Your task to perform on an android device: Open CNN.com Image 0: 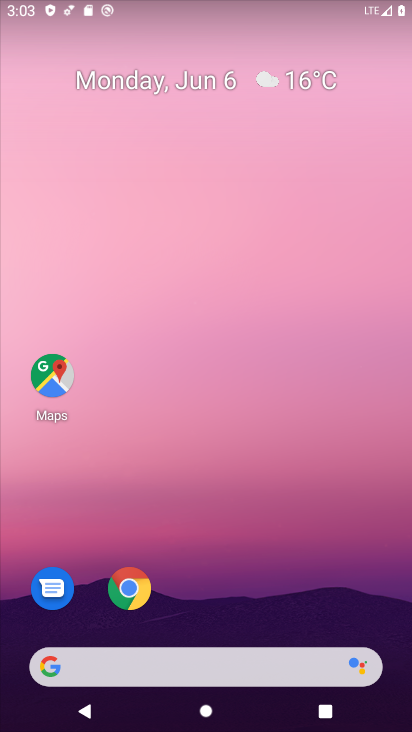
Step 0: click (139, 594)
Your task to perform on an android device: Open CNN.com Image 1: 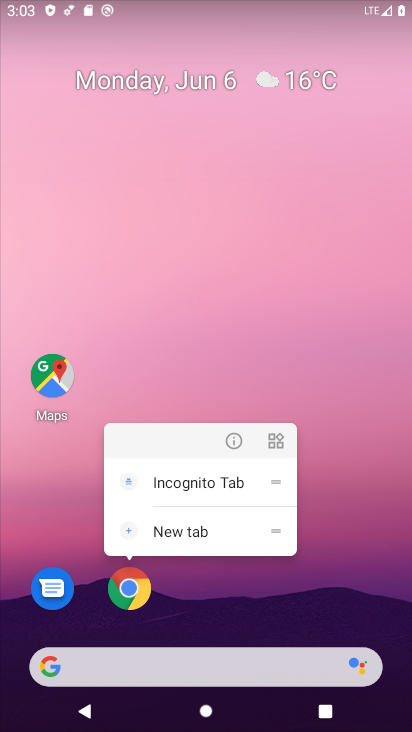
Step 1: click (139, 594)
Your task to perform on an android device: Open CNN.com Image 2: 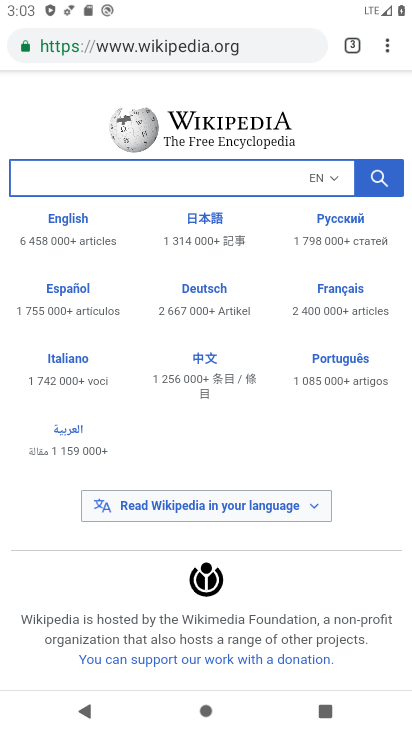
Step 2: click (187, 48)
Your task to perform on an android device: Open CNN.com Image 3: 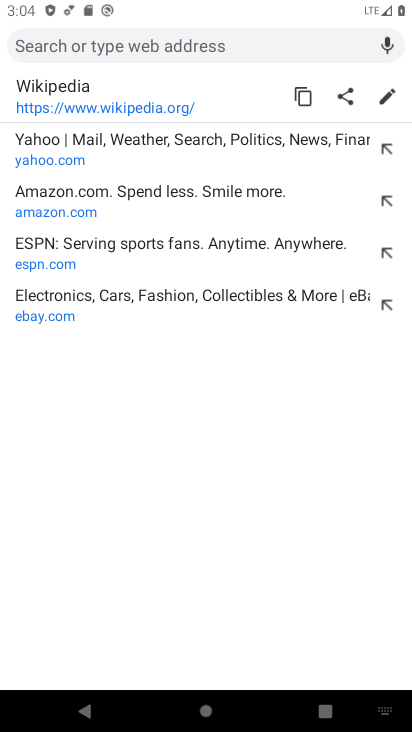
Step 3: type "cnn.com"
Your task to perform on an android device: Open CNN.com Image 4: 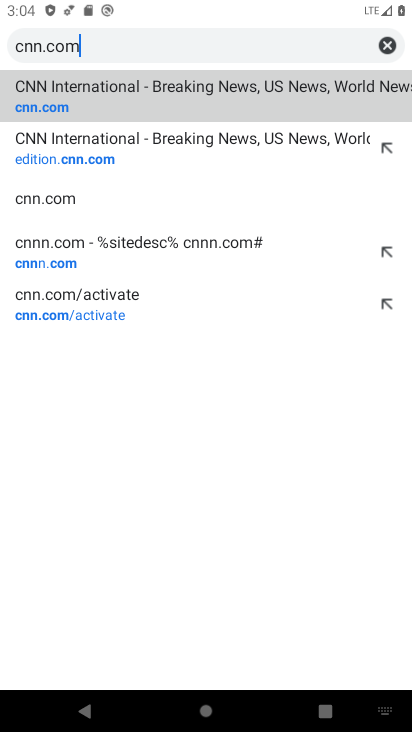
Step 4: click (305, 120)
Your task to perform on an android device: Open CNN.com Image 5: 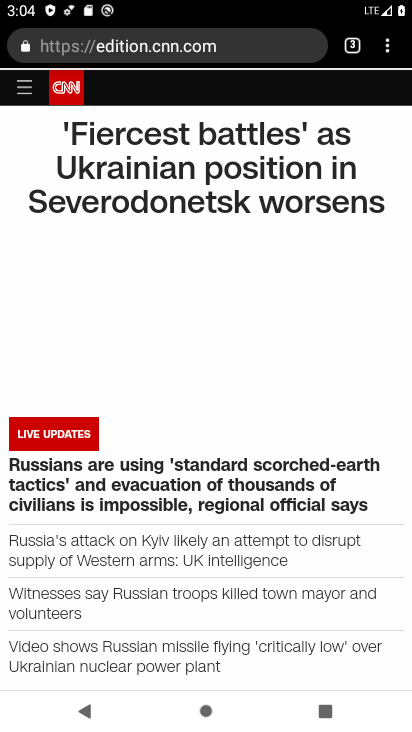
Step 5: task complete